Your task to perform on an android device: toggle data saver in the chrome app Image 0: 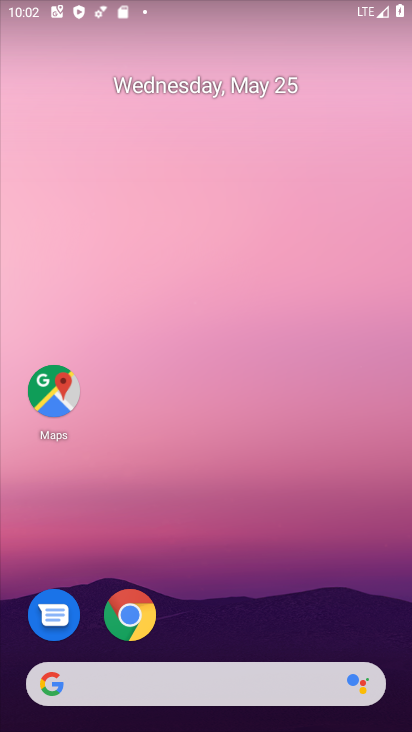
Step 0: click (136, 624)
Your task to perform on an android device: toggle data saver in the chrome app Image 1: 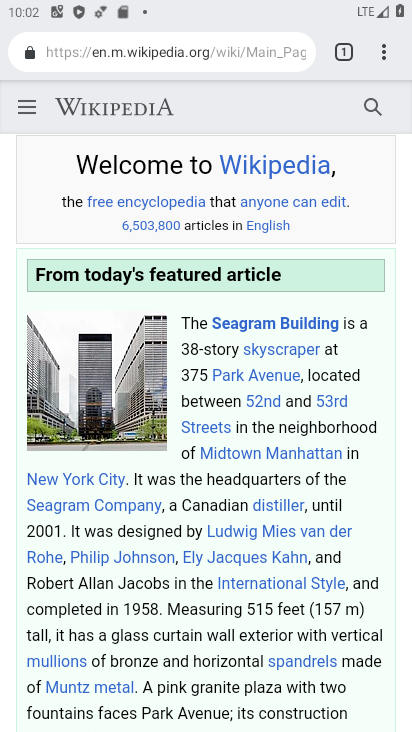
Step 1: click (381, 53)
Your task to perform on an android device: toggle data saver in the chrome app Image 2: 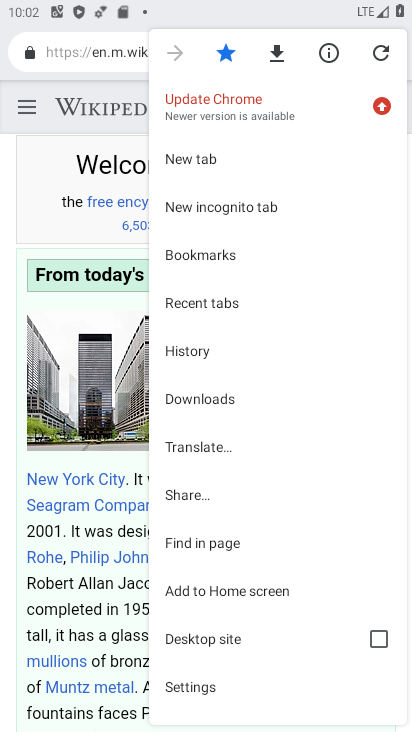
Step 2: click (232, 683)
Your task to perform on an android device: toggle data saver in the chrome app Image 3: 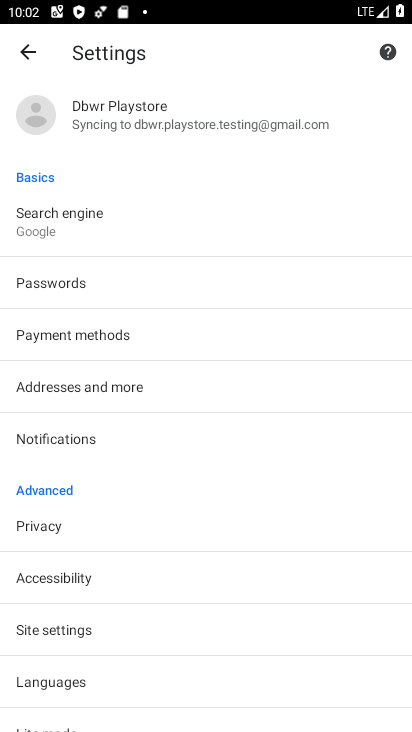
Step 3: drag from (232, 681) to (254, 575)
Your task to perform on an android device: toggle data saver in the chrome app Image 4: 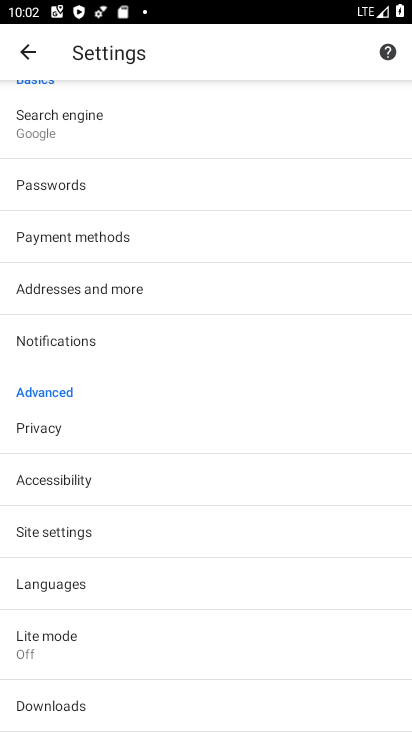
Step 4: click (217, 641)
Your task to perform on an android device: toggle data saver in the chrome app Image 5: 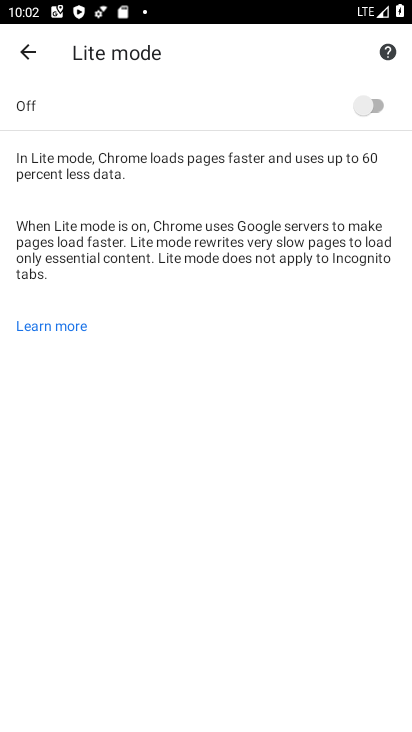
Step 5: click (373, 98)
Your task to perform on an android device: toggle data saver in the chrome app Image 6: 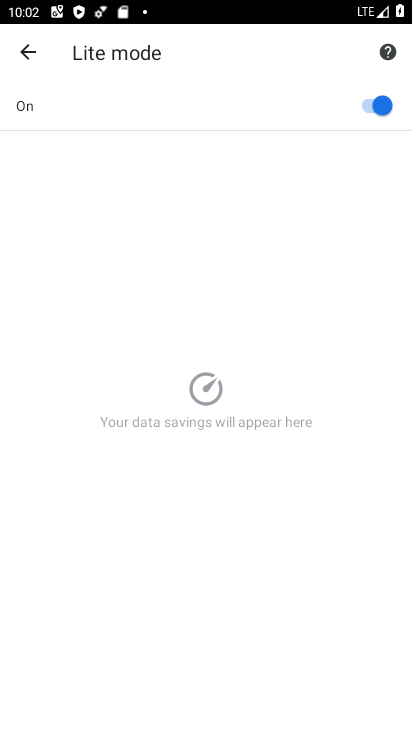
Step 6: task complete